Your task to perform on an android device: Set the phone to "Do not disturb". Image 0: 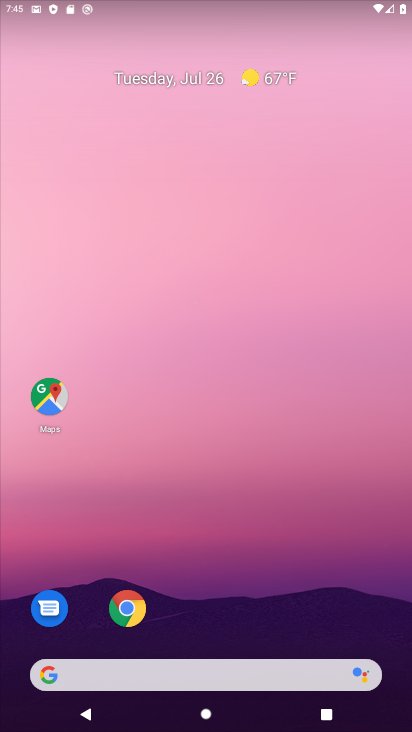
Step 0: drag from (196, 632) to (270, 13)
Your task to perform on an android device: Set the phone to "Do not disturb". Image 1: 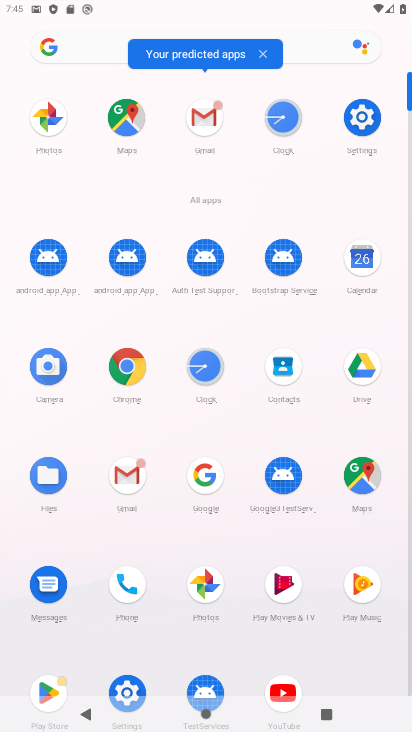
Step 1: click (131, 679)
Your task to perform on an android device: Set the phone to "Do not disturb". Image 2: 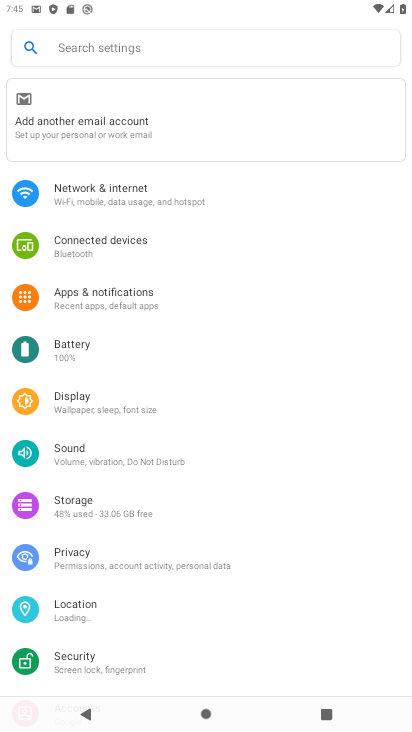
Step 2: click (82, 453)
Your task to perform on an android device: Set the phone to "Do not disturb". Image 3: 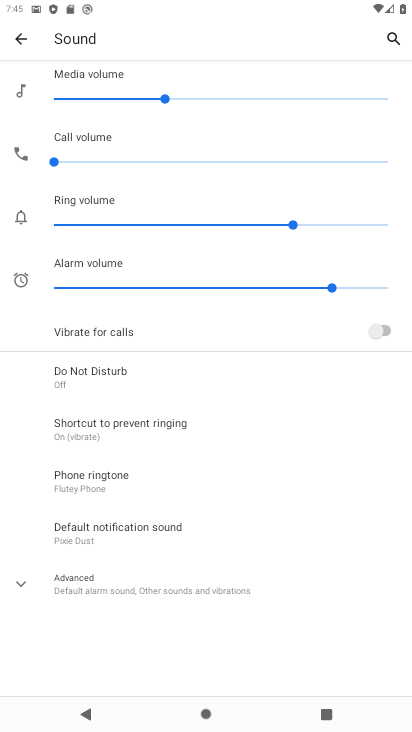
Step 3: click (87, 378)
Your task to perform on an android device: Set the phone to "Do not disturb". Image 4: 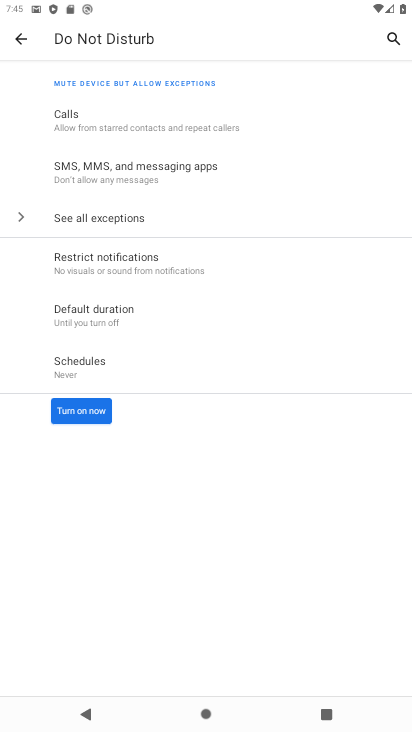
Step 4: click (84, 416)
Your task to perform on an android device: Set the phone to "Do not disturb". Image 5: 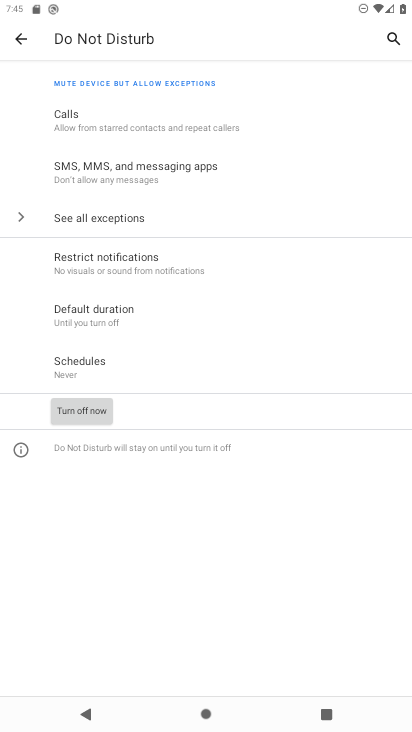
Step 5: task complete